Your task to perform on an android device: turn on the 24-hour format for clock Image 0: 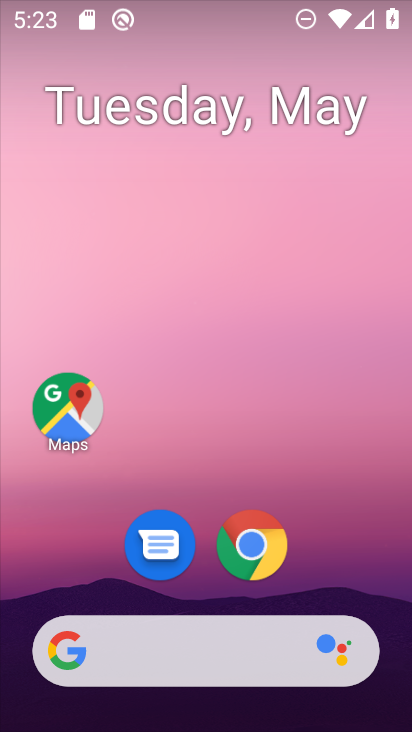
Step 0: drag from (304, 383) to (257, 27)
Your task to perform on an android device: turn on the 24-hour format for clock Image 1: 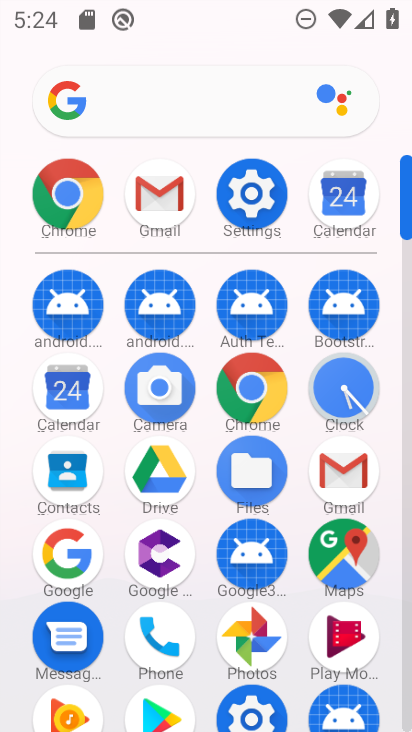
Step 1: drag from (25, 592) to (13, 257)
Your task to perform on an android device: turn on the 24-hour format for clock Image 2: 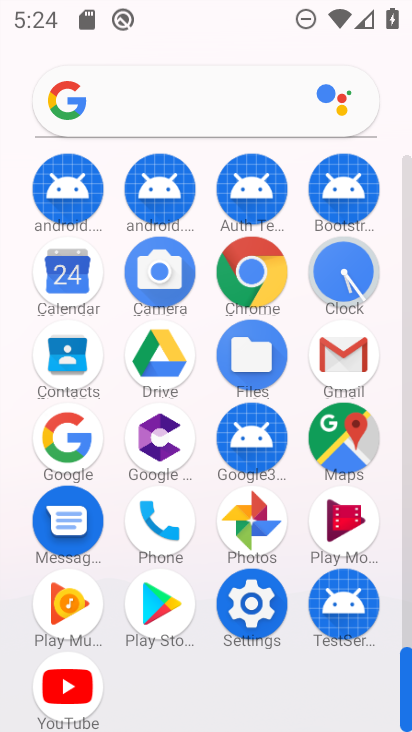
Step 2: click (349, 268)
Your task to perform on an android device: turn on the 24-hour format for clock Image 3: 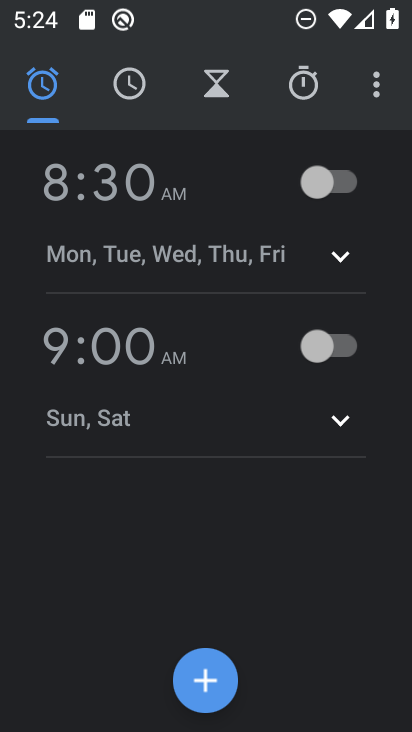
Step 3: drag from (368, 71) to (219, 189)
Your task to perform on an android device: turn on the 24-hour format for clock Image 4: 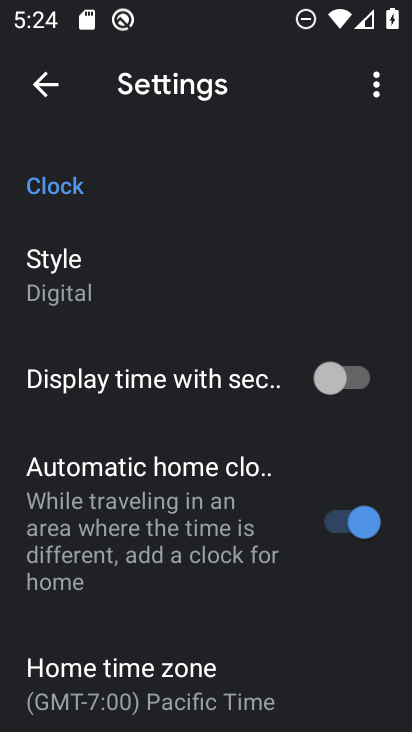
Step 4: drag from (183, 517) to (171, 175)
Your task to perform on an android device: turn on the 24-hour format for clock Image 5: 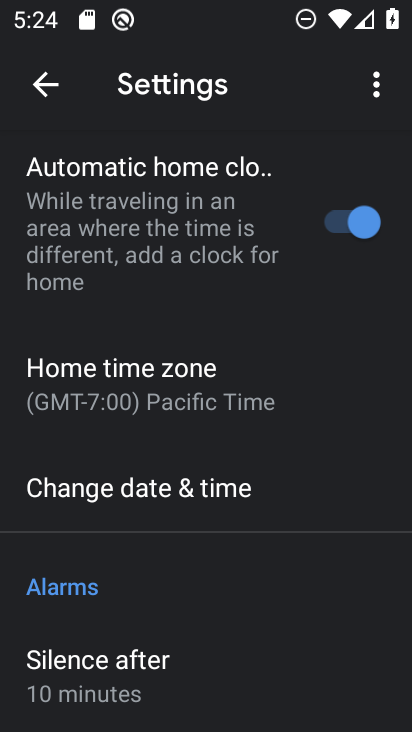
Step 5: click (175, 500)
Your task to perform on an android device: turn on the 24-hour format for clock Image 6: 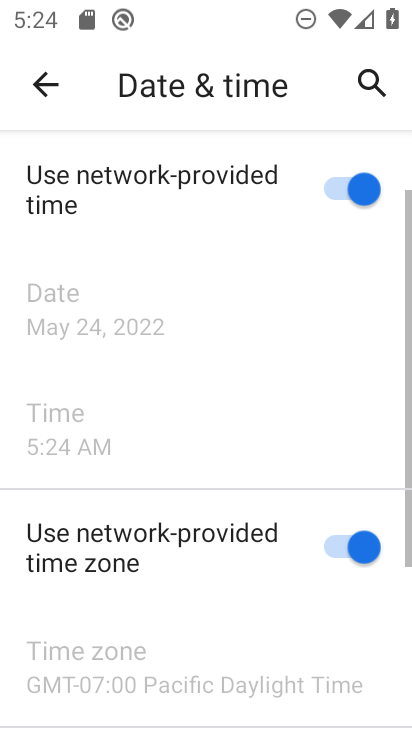
Step 6: drag from (243, 625) to (217, 187)
Your task to perform on an android device: turn on the 24-hour format for clock Image 7: 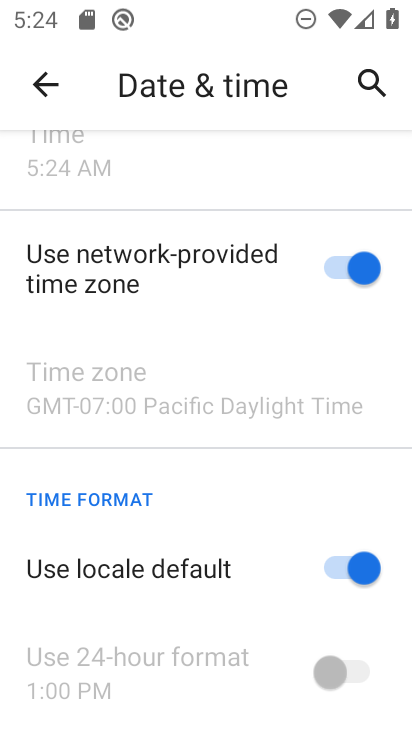
Step 7: drag from (225, 613) to (218, 253)
Your task to perform on an android device: turn on the 24-hour format for clock Image 8: 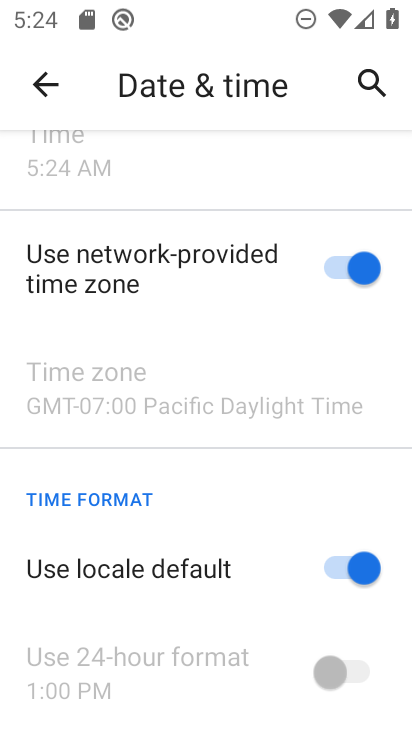
Step 8: click (361, 569)
Your task to perform on an android device: turn on the 24-hour format for clock Image 9: 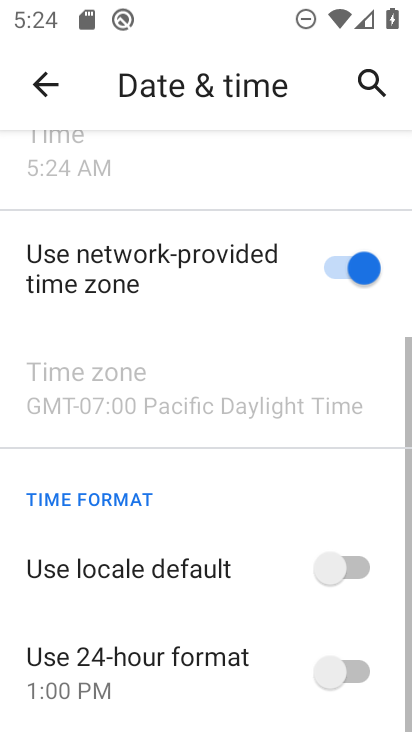
Step 9: click (344, 669)
Your task to perform on an android device: turn on the 24-hour format for clock Image 10: 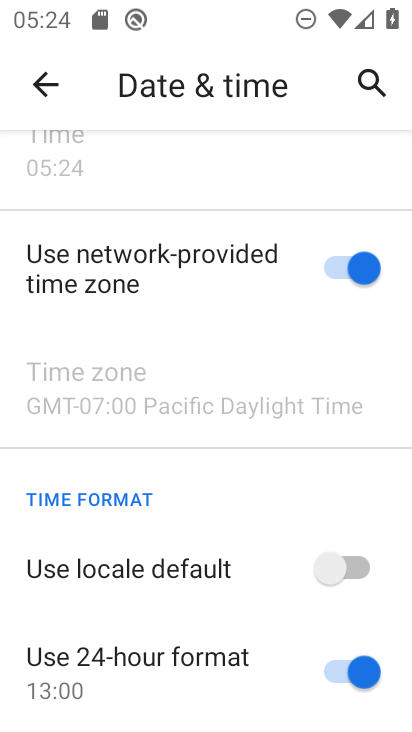
Step 10: task complete